Your task to perform on an android device: make emails show in primary in the gmail app Image 0: 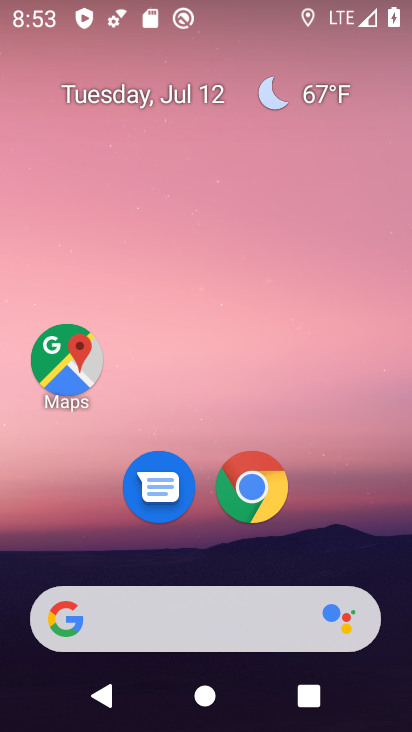
Step 0: drag from (223, 587) to (252, 3)
Your task to perform on an android device: make emails show in primary in the gmail app Image 1: 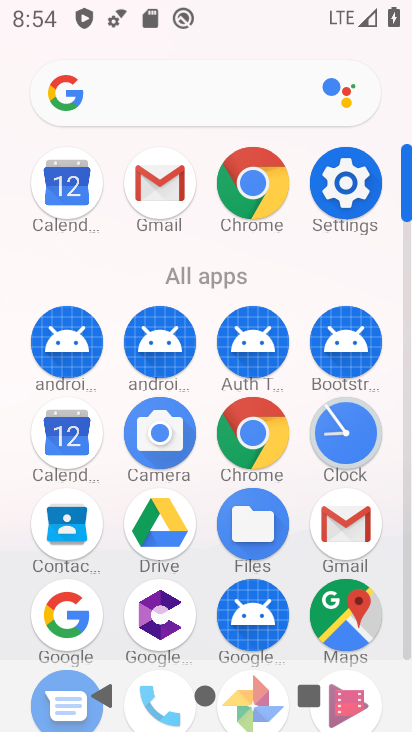
Step 1: click (359, 518)
Your task to perform on an android device: make emails show in primary in the gmail app Image 2: 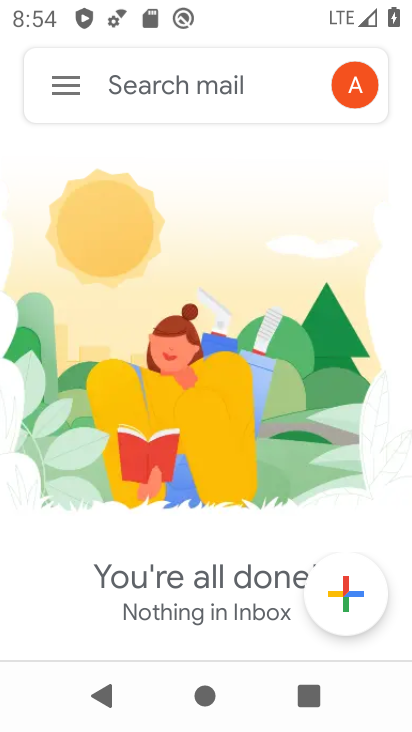
Step 2: click (70, 92)
Your task to perform on an android device: make emails show in primary in the gmail app Image 3: 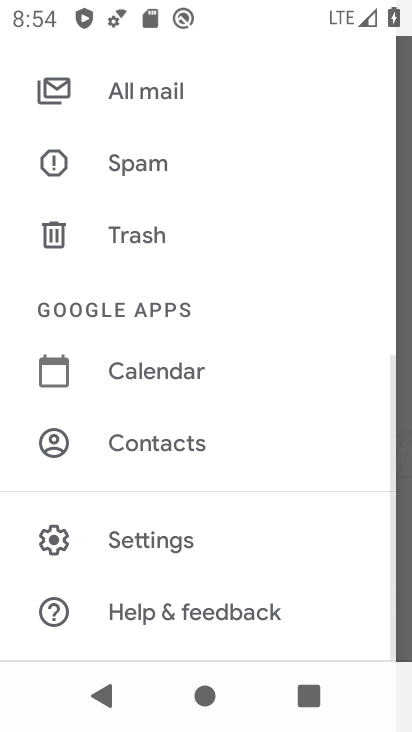
Step 3: click (158, 537)
Your task to perform on an android device: make emails show in primary in the gmail app Image 4: 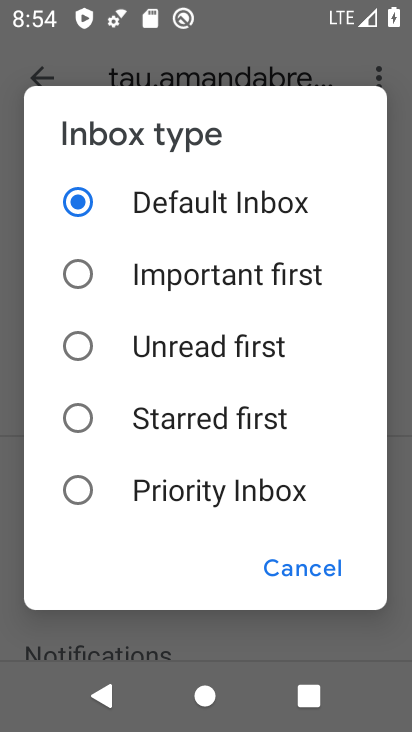
Step 4: click (326, 580)
Your task to perform on an android device: make emails show in primary in the gmail app Image 5: 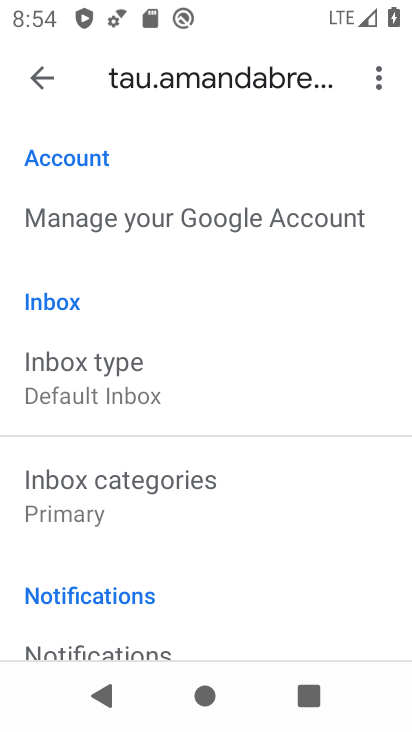
Step 5: click (103, 520)
Your task to perform on an android device: make emails show in primary in the gmail app Image 6: 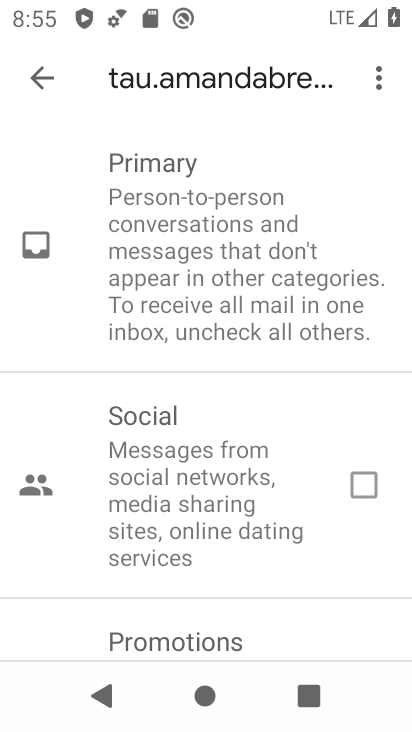
Step 6: click (194, 193)
Your task to perform on an android device: make emails show in primary in the gmail app Image 7: 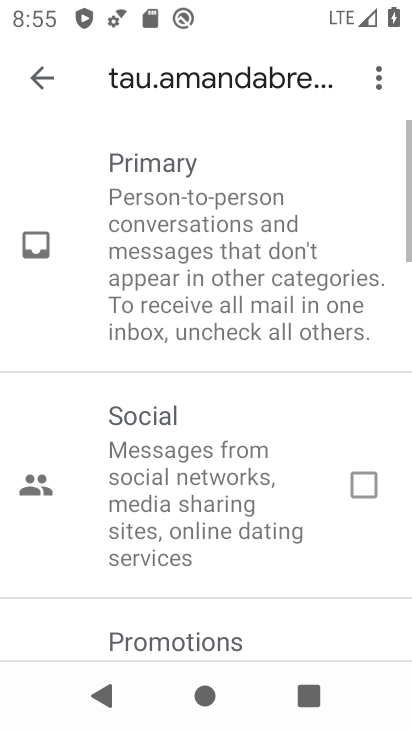
Step 7: click (360, 502)
Your task to perform on an android device: make emails show in primary in the gmail app Image 8: 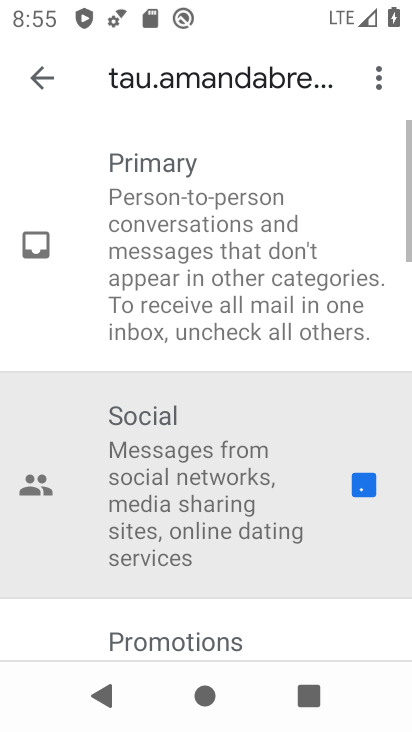
Step 8: drag from (298, 605) to (328, 246)
Your task to perform on an android device: make emails show in primary in the gmail app Image 9: 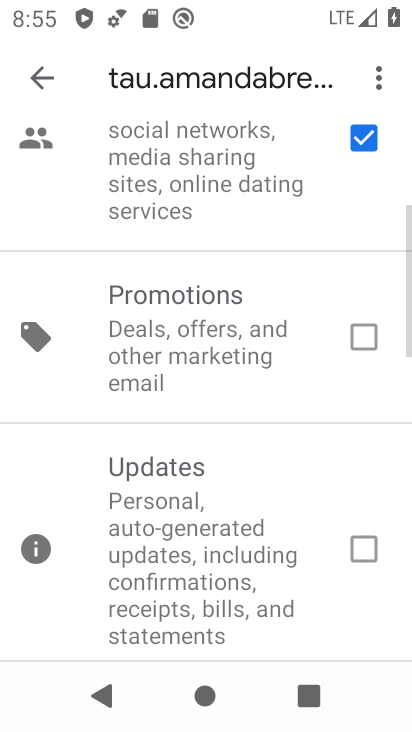
Step 9: click (363, 346)
Your task to perform on an android device: make emails show in primary in the gmail app Image 10: 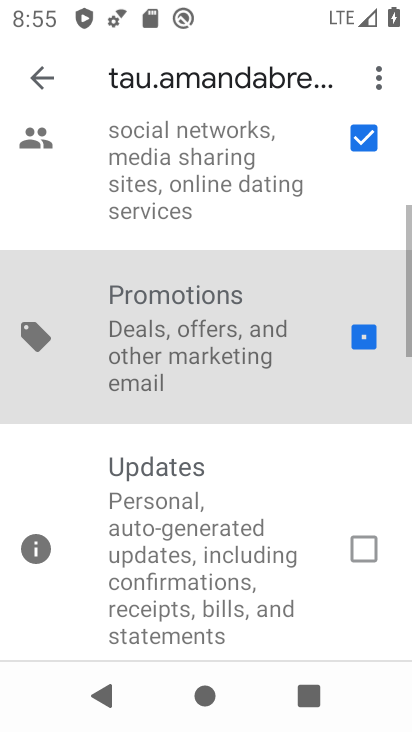
Step 10: click (365, 529)
Your task to perform on an android device: make emails show in primary in the gmail app Image 11: 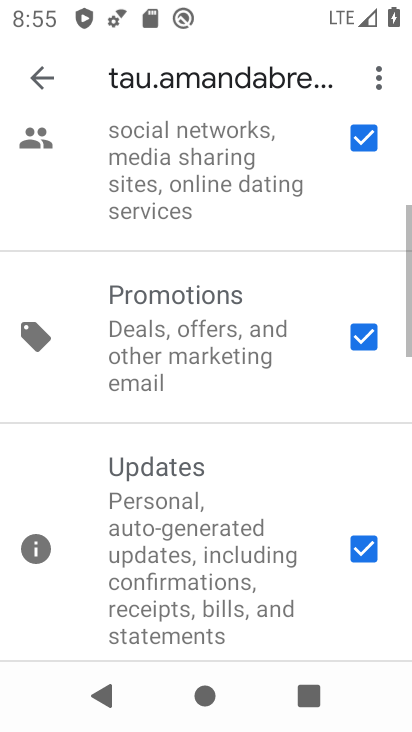
Step 11: drag from (196, 647) to (226, 128)
Your task to perform on an android device: make emails show in primary in the gmail app Image 12: 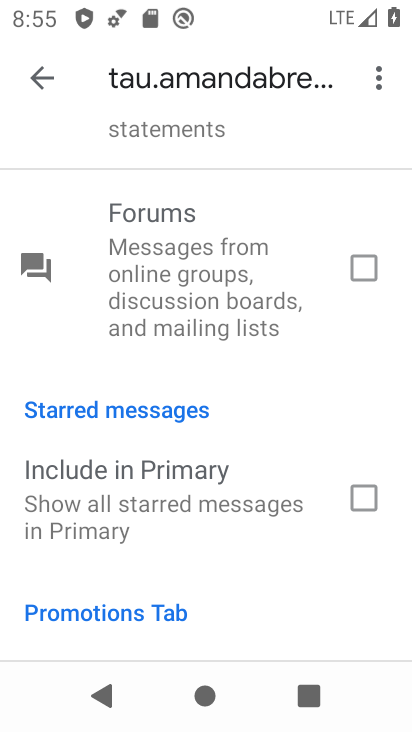
Step 12: click (347, 259)
Your task to perform on an android device: make emails show in primary in the gmail app Image 13: 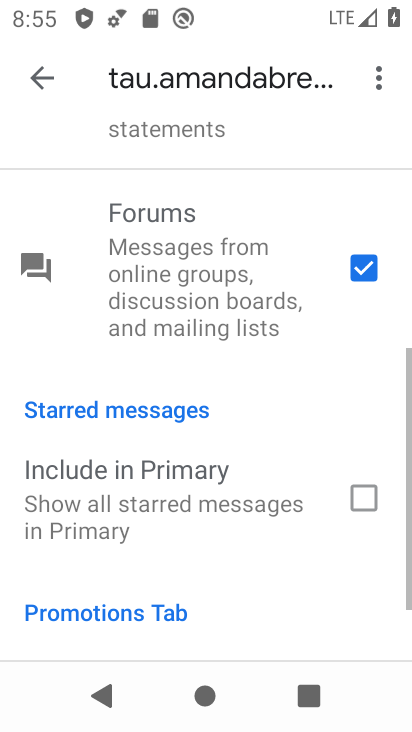
Step 13: click (362, 504)
Your task to perform on an android device: make emails show in primary in the gmail app Image 14: 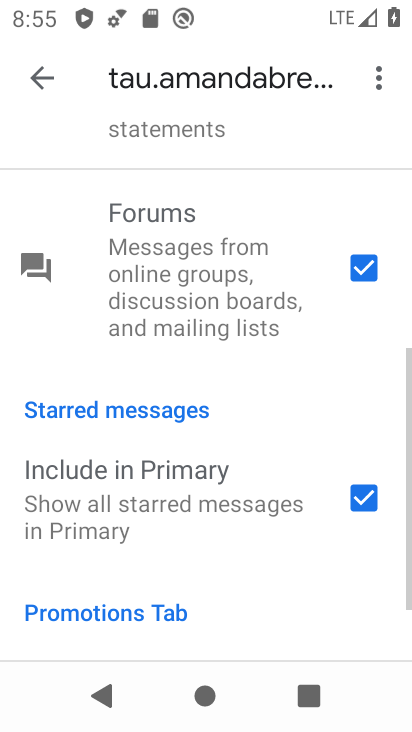
Step 14: task complete